Your task to perform on an android device: manage bookmarks in the chrome app Image 0: 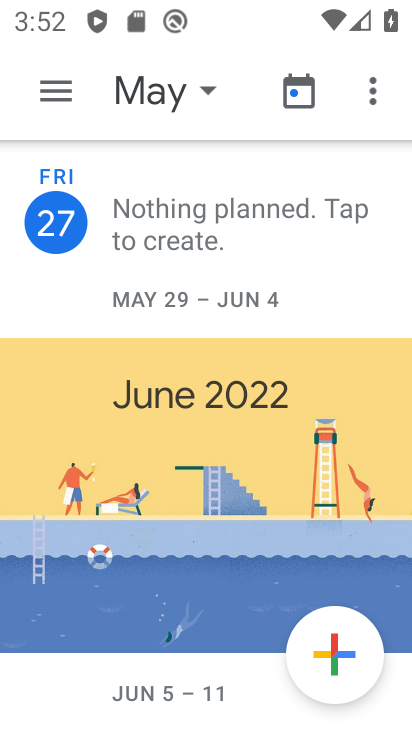
Step 0: press home button
Your task to perform on an android device: manage bookmarks in the chrome app Image 1: 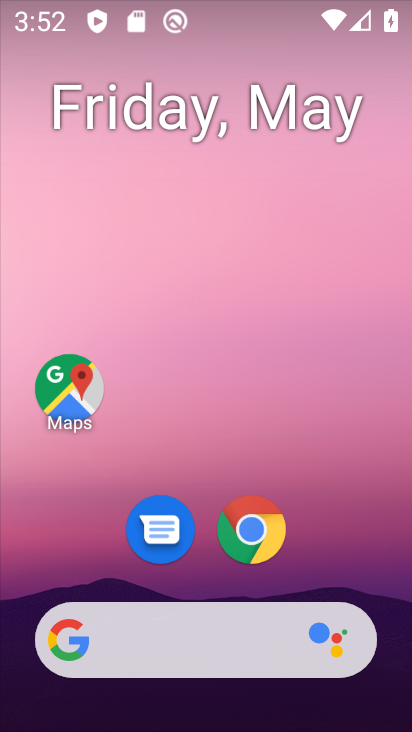
Step 1: click (250, 517)
Your task to perform on an android device: manage bookmarks in the chrome app Image 2: 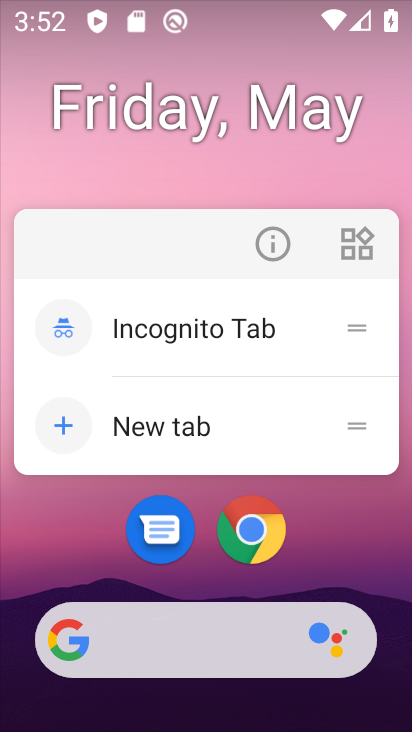
Step 2: click (250, 517)
Your task to perform on an android device: manage bookmarks in the chrome app Image 3: 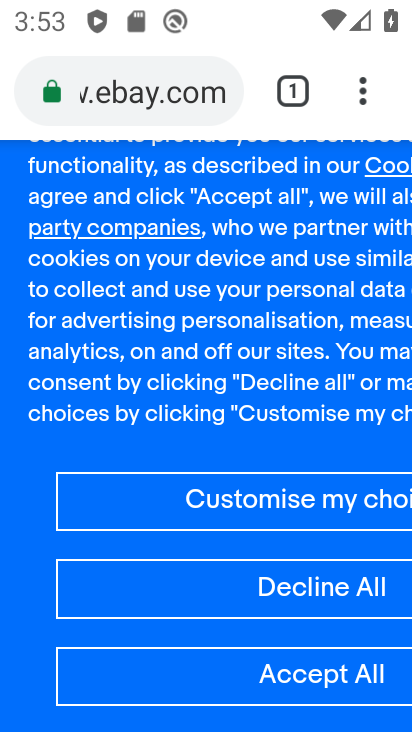
Step 3: click (360, 81)
Your task to perform on an android device: manage bookmarks in the chrome app Image 4: 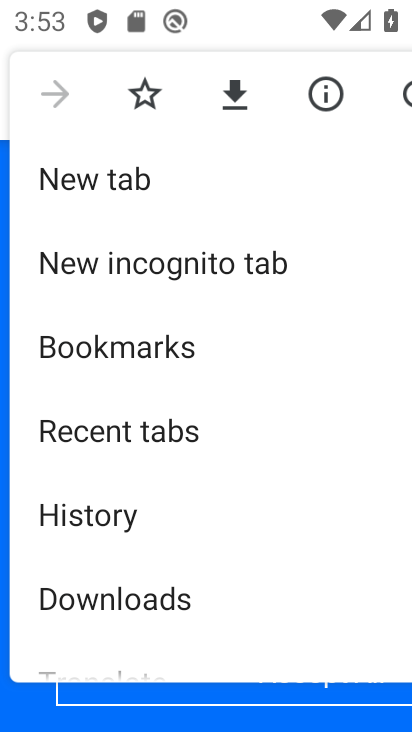
Step 4: click (141, 365)
Your task to perform on an android device: manage bookmarks in the chrome app Image 5: 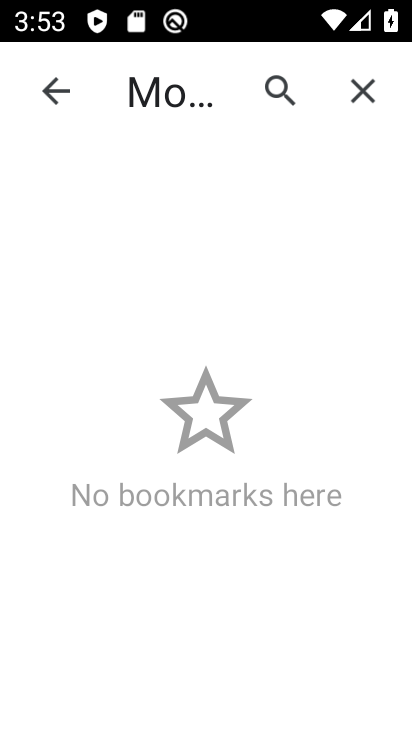
Step 5: task complete